Your task to perform on an android device: Go to Amazon Image 0: 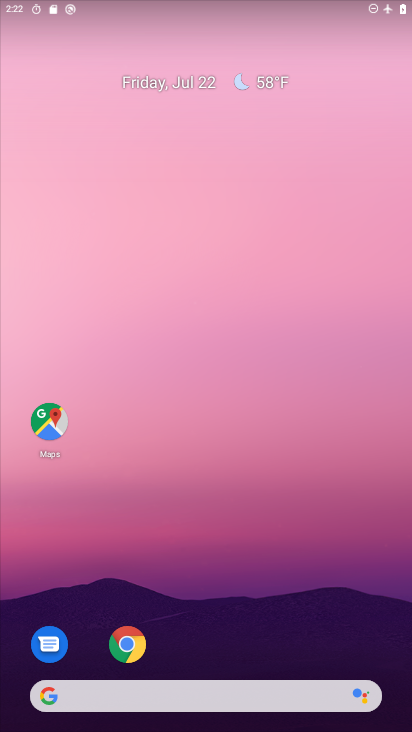
Step 0: click (122, 639)
Your task to perform on an android device: Go to Amazon Image 1: 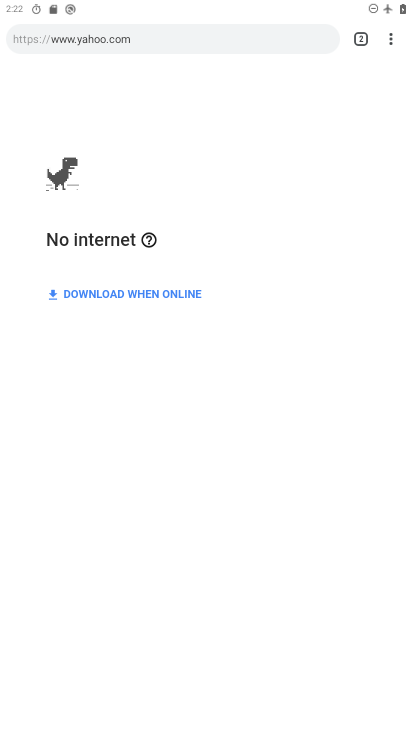
Step 1: click (365, 43)
Your task to perform on an android device: Go to Amazon Image 2: 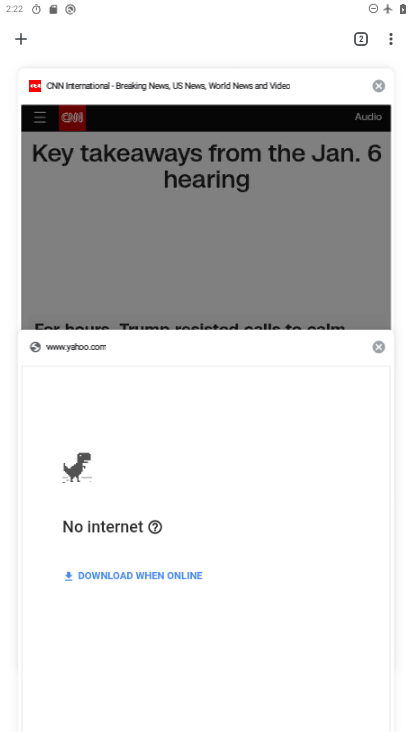
Step 2: click (18, 37)
Your task to perform on an android device: Go to Amazon Image 3: 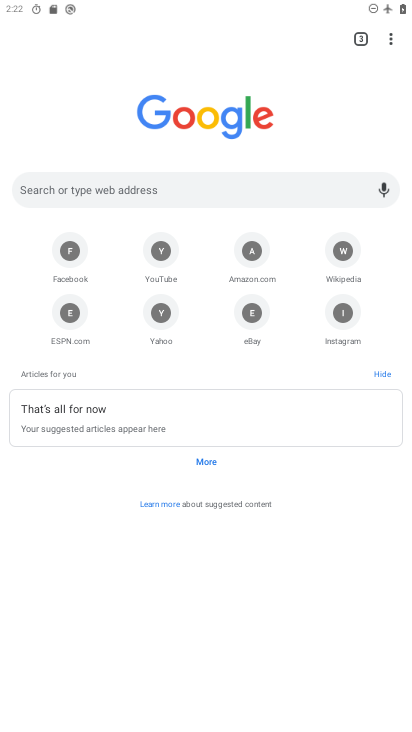
Step 3: click (245, 259)
Your task to perform on an android device: Go to Amazon Image 4: 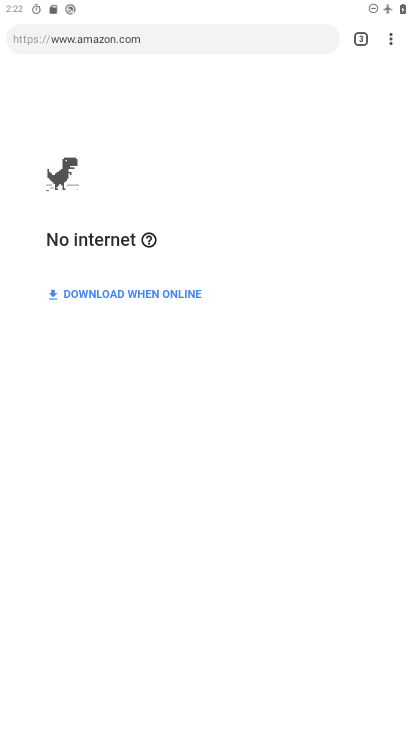
Step 4: task complete